Your task to perform on an android device: change the clock display to digital Image 0: 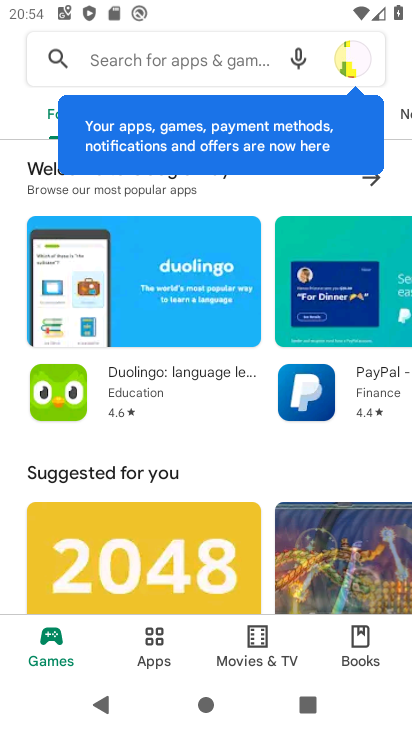
Step 0: press home button
Your task to perform on an android device: change the clock display to digital Image 1: 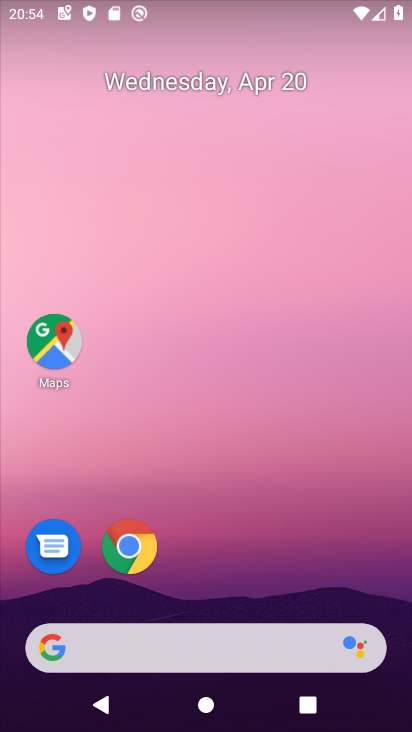
Step 1: drag from (217, 562) to (229, 146)
Your task to perform on an android device: change the clock display to digital Image 2: 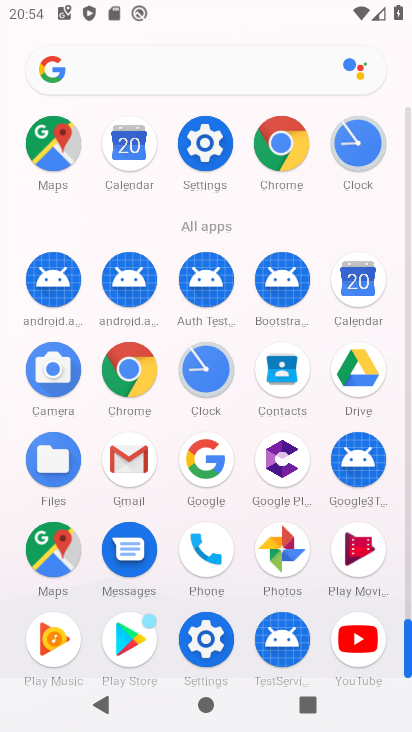
Step 2: click (349, 159)
Your task to perform on an android device: change the clock display to digital Image 3: 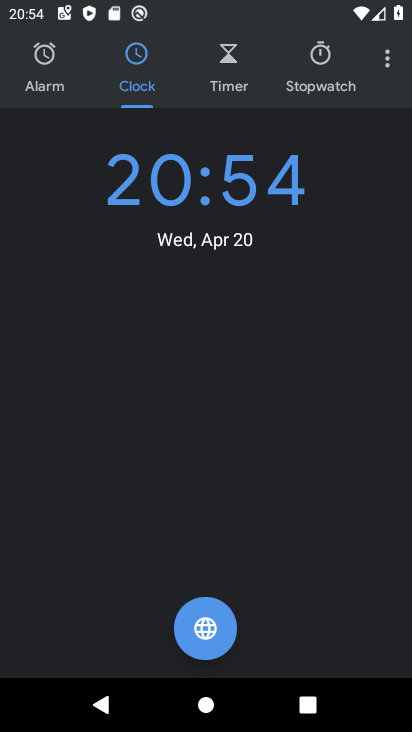
Step 3: click (382, 71)
Your task to perform on an android device: change the clock display to digital Image 4: 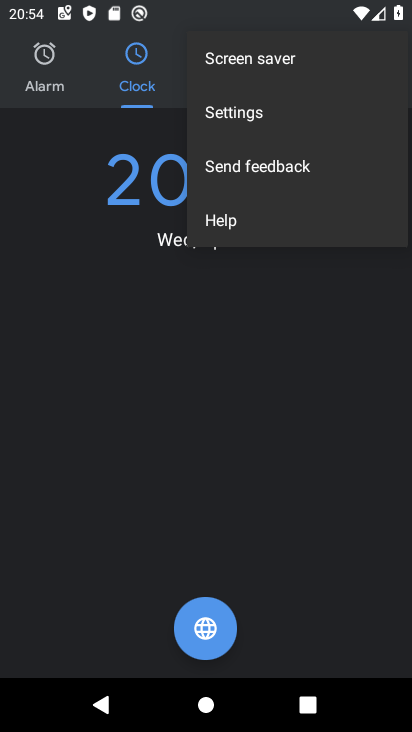
Step 4: click (232, 113)
Your task to perform on an android device: change the clock display to digital Image 5: 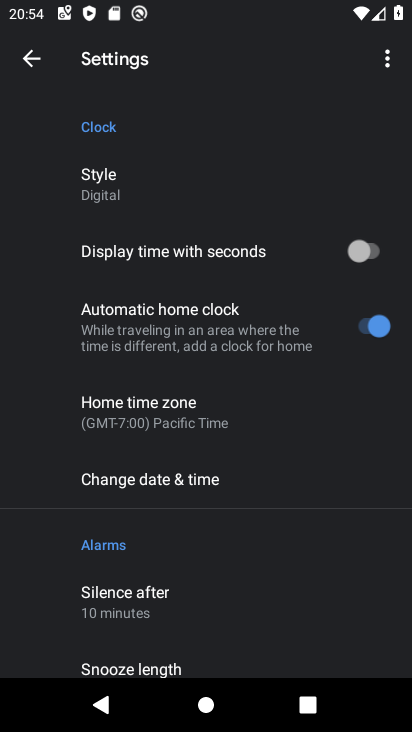
Step 5: click (181, 183)
Your task to perform on an android device: change the clock display to digital Image 6: 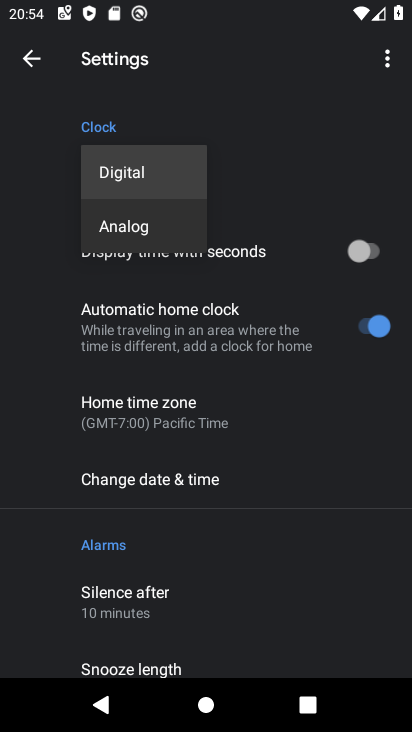
Step 6: task complete